Your task to perform on an android device: Go to ESPN.com Image 0: 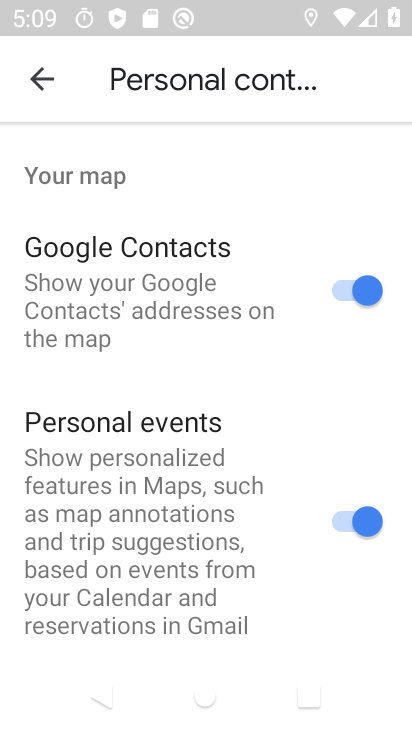
Step 0: press home button
Your task to perform on an android device: Go to ESPN.com Image 1: 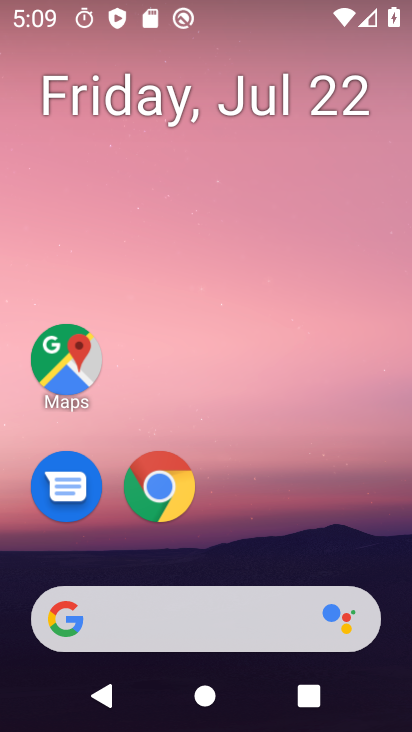
Step 1: click (172, 478)
Your task to perform on an android device: Go to ESPN.com Image 2: 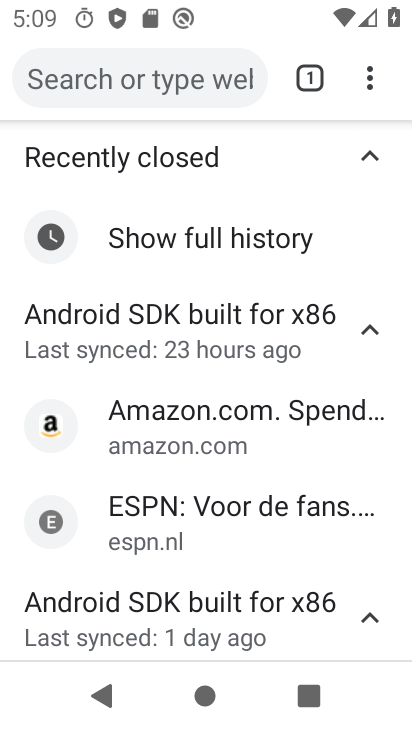
Step 2: click (310, 83)
Your task to perform on an android device: Go to ESPN.com Image 3: 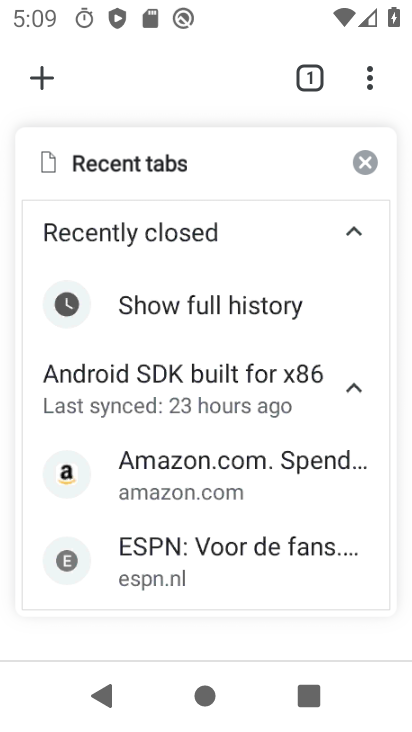
Step 3: click (37, 89)
Your task to perform on an android device: Go to ESPN.com Image 4: 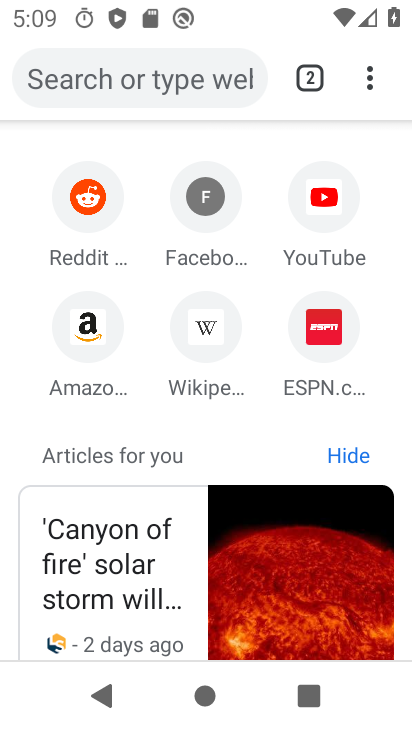
Step 4: click (312, 328)
Your task to perform on an android device: Go to ESPN.com Image 5: 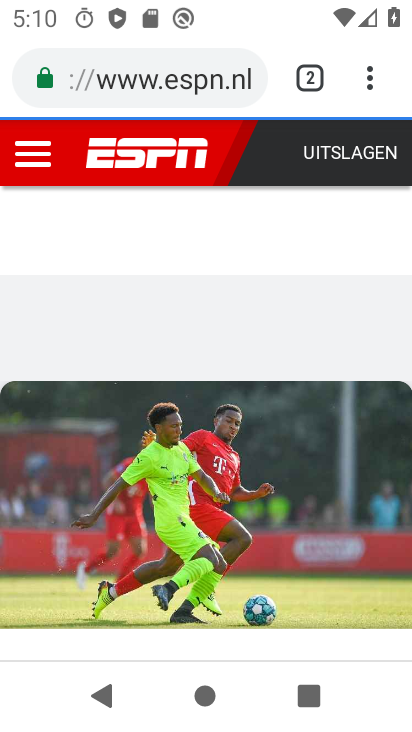
Step 5: task complete